Your task to perform on an android device: Open sound settings Image 0: 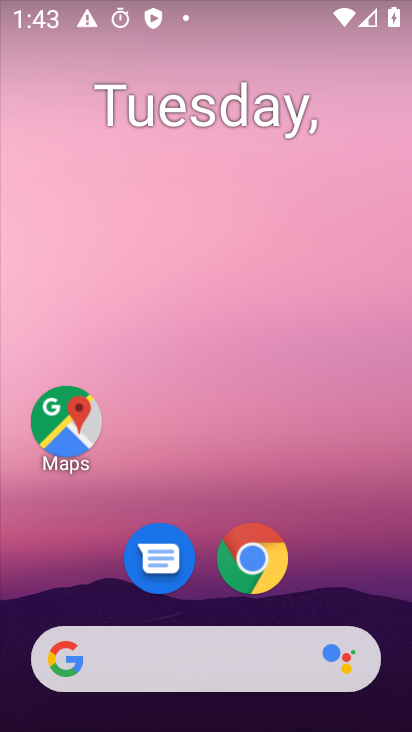
Step 0: drag from (225, 482) to (212, 110)
Your task to perform on an android device: Open sound settings Image 1: 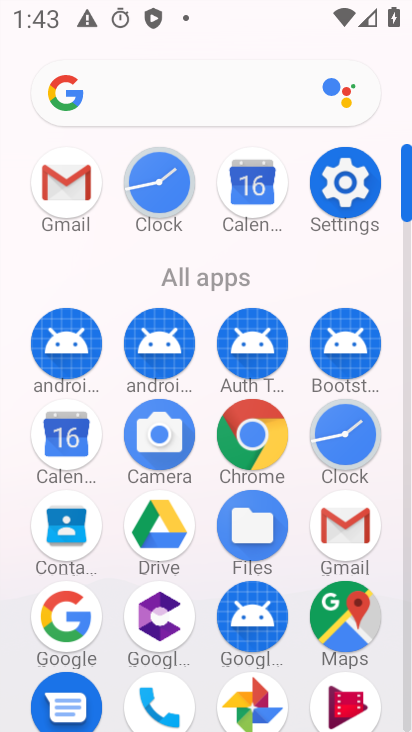
Step 1: click (357, 173)
Your task to perform on an android device: Open sound settings Image 2: 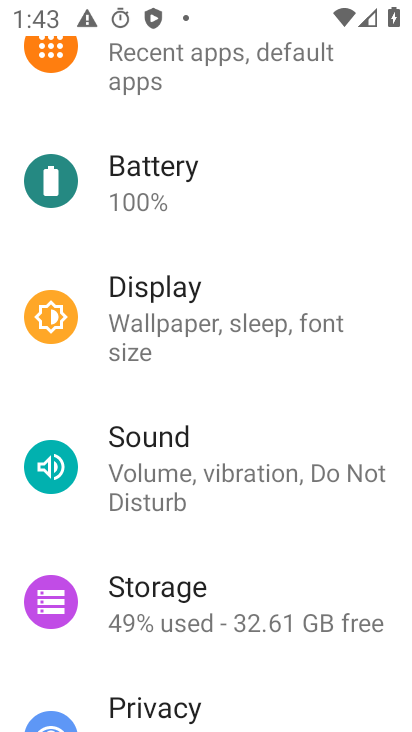
Step 2: click (145, 437)
Your task to perform on an android device: Open sound settings Image 3: 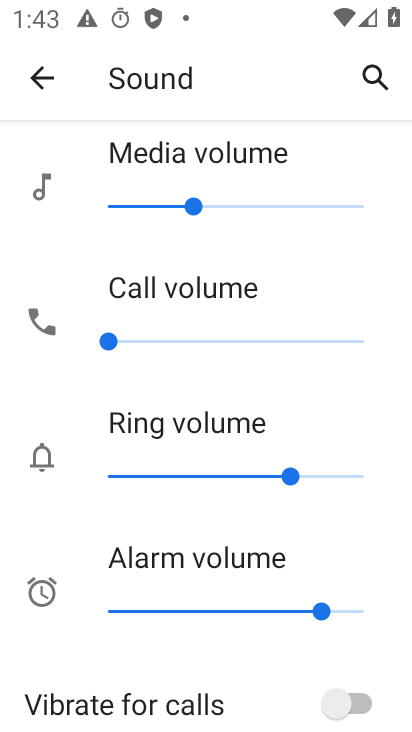
Step 3: task complete